Your task to perform on an android device: Open notification settings Image 0: 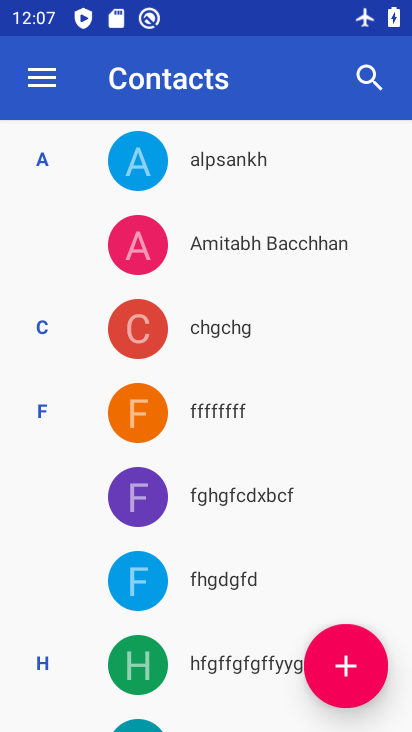
Step 0: press home button
Your task to perform on an android device: Open notification settings Image 1: 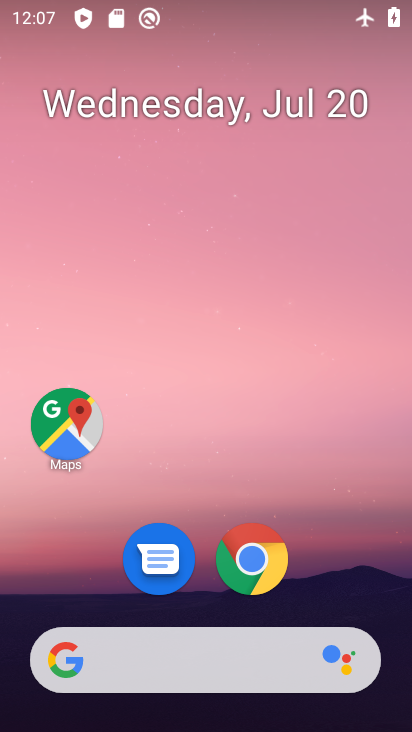
Step 1: drag from (369, 590) to (354, 122)
Your task to perform on an android device: Open notification settings Image 2: 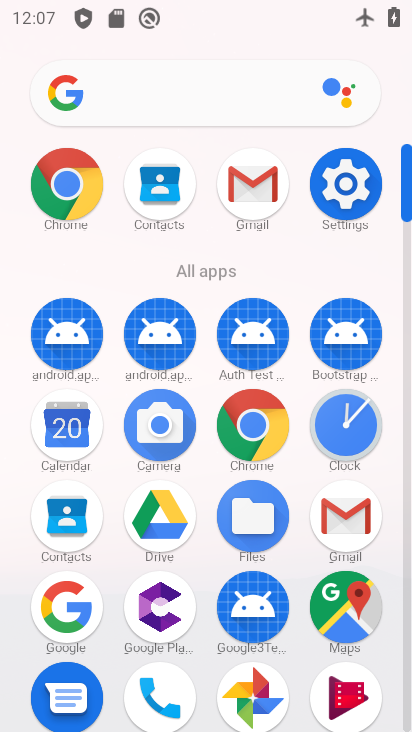
Step 2: click (366, 181)
Your task to perform on an android device: Open notification settings Image 3: 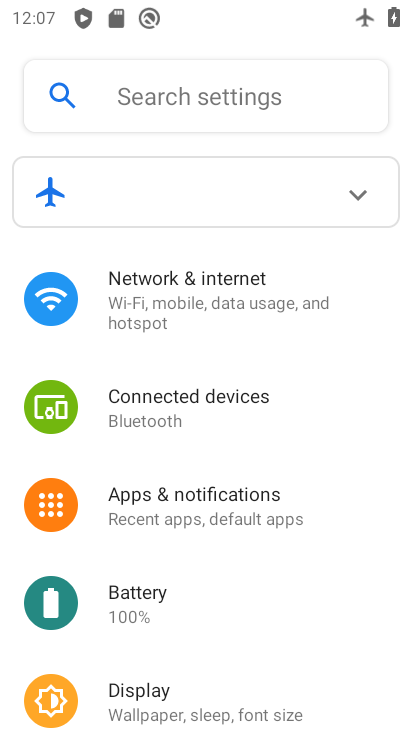
Step 3: drag from (351, 415) to (347, 348)
Your task to perform on an android device: Open notification settings Image 4: 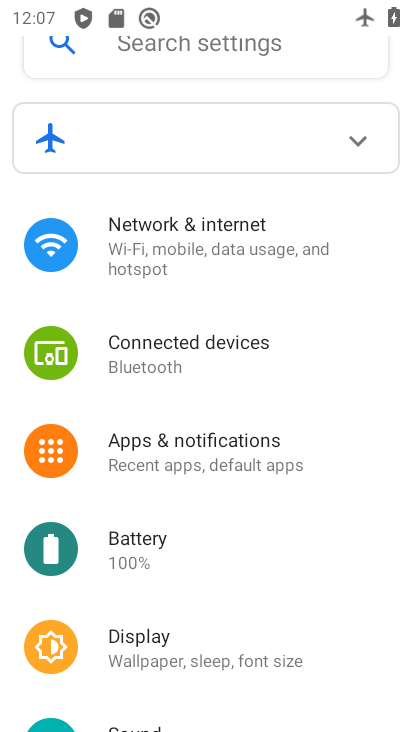
Step 4: drag from (357, 520) to (358, 401)
Your task to perform on an android device: Open notification settings Image 5: 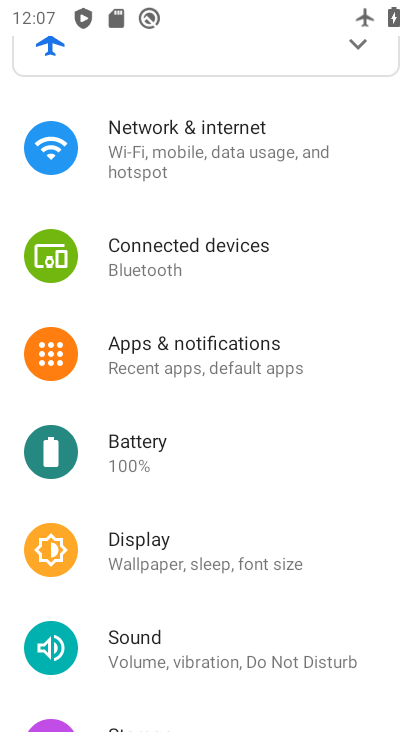
Step 5: drag from (363, 533) to (362, 434)
Your task to perform on an android device: Open notification settings Image 6: 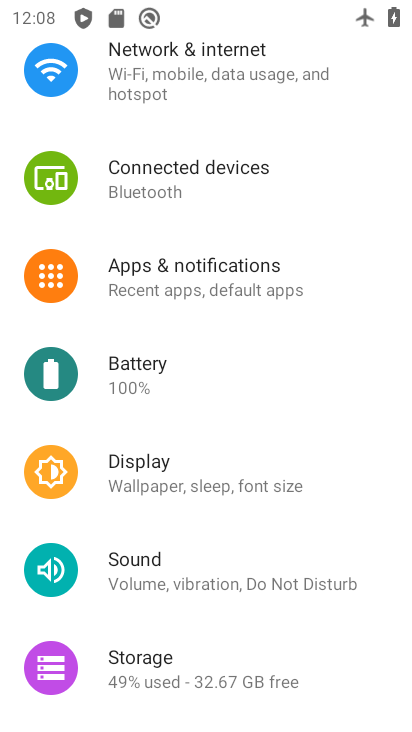
Step 6: click (317, 303)
Your task to perform on an android device: Open notification settings Image 7: 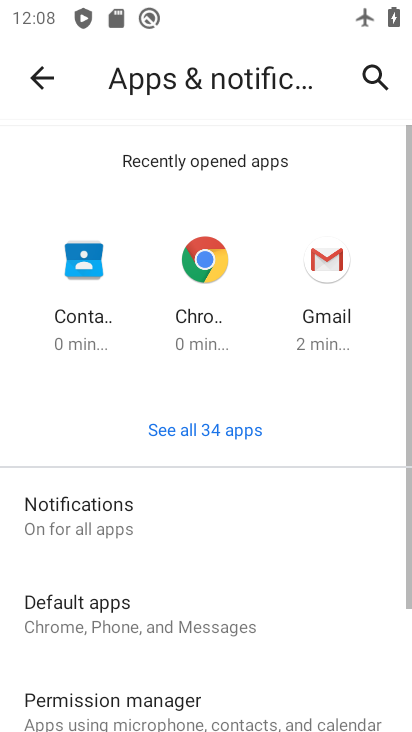
Step 7: click (253, 513)
Your task to perform on an android device: Open notification settings Image 8: 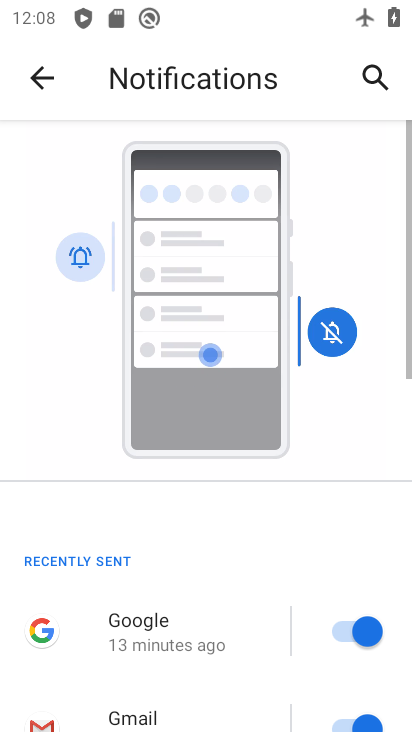
Step 8: task complete